Your task to perform on an android device: Go to internet settings Image 0: 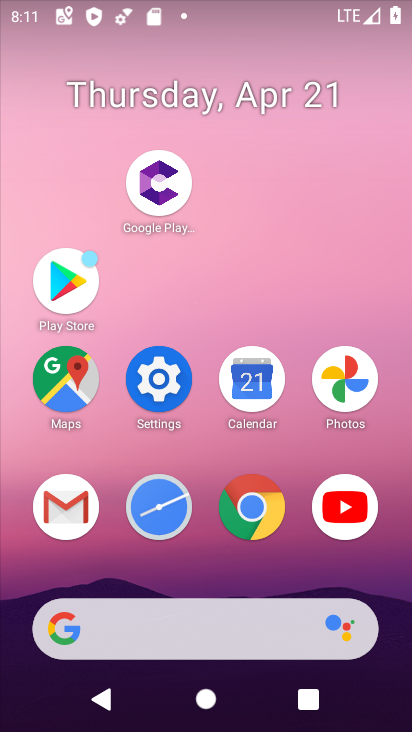
Step 0: click (161, 378)
Your task to perform on an android device: Go to internet settings Image 1: 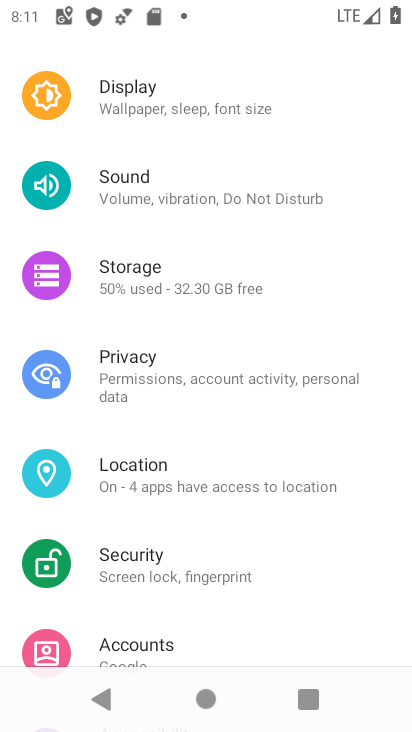
Step 1: drag from (282, 151) to (222, 533)
Your task to perform on an android device: Go to internet settings Image 2: 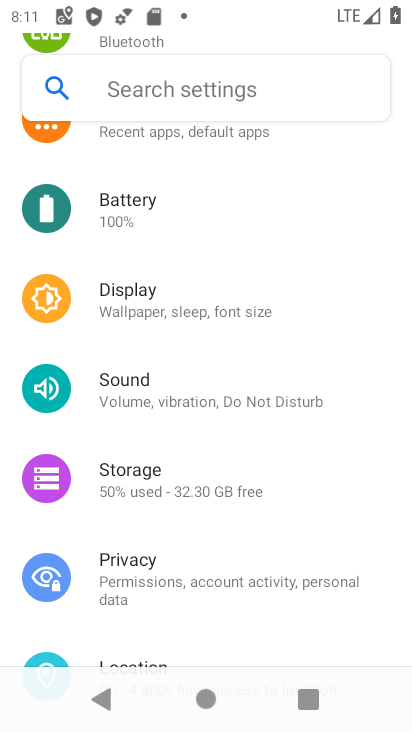
Step 2: drag from (277, 171) to (209, 537)
Your task to perform on an android device: Go to internet settings Image 3: 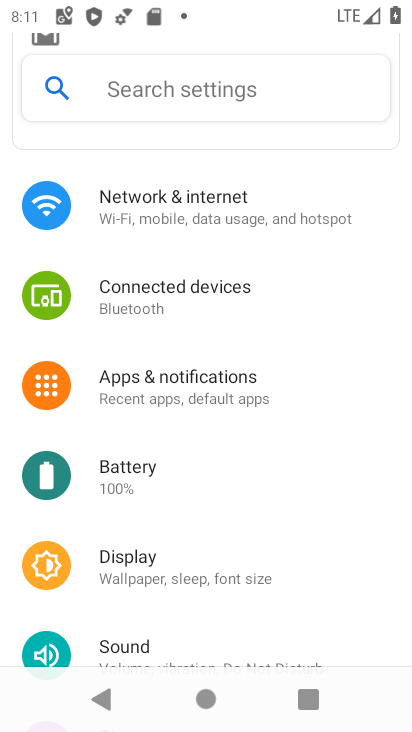
Step 3: click (158, 201)
Your task to perform on an android device: Go to internet settings Image 4: 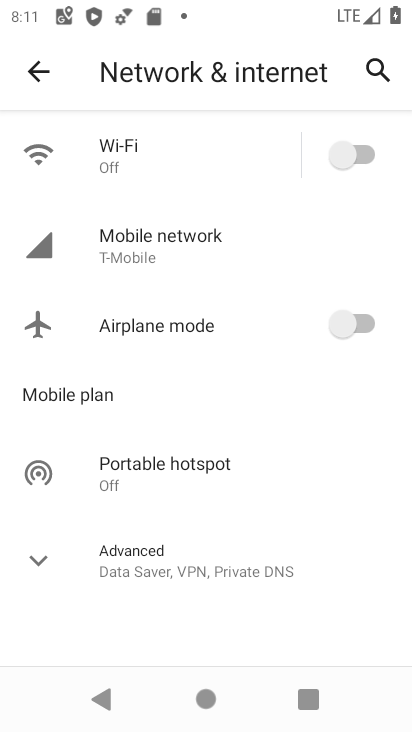
Step 4: task complete